Your task to perform on an android device: clear history in the chrome app Image 0: 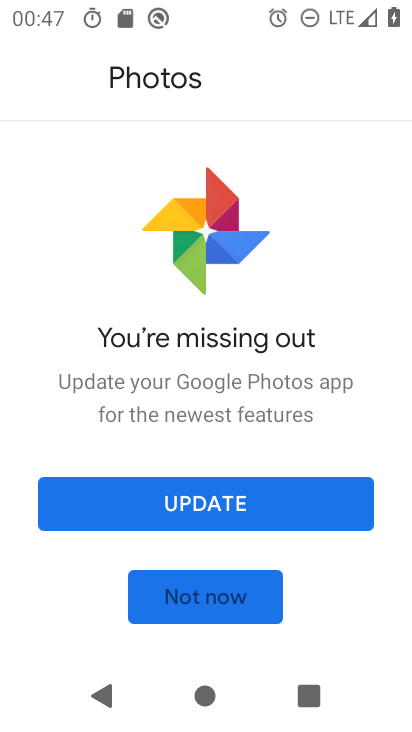
Step 0: press home button
Your task to perform on an android device: clear history in the chrome app Image 1: 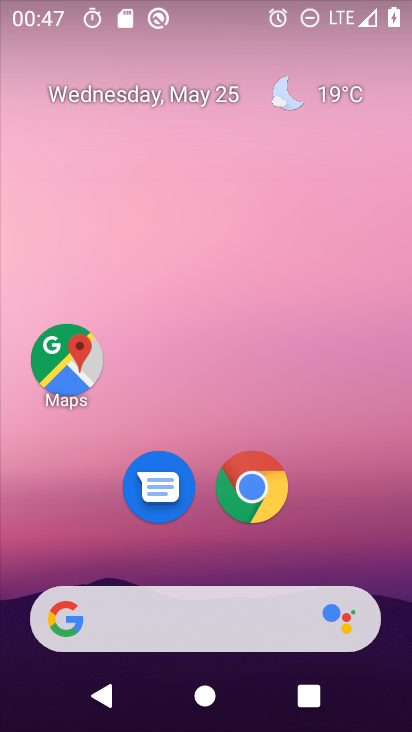
Step 1: click (257, 496)
Your task to perform on an android device: clear history in the chrome app Image 2: 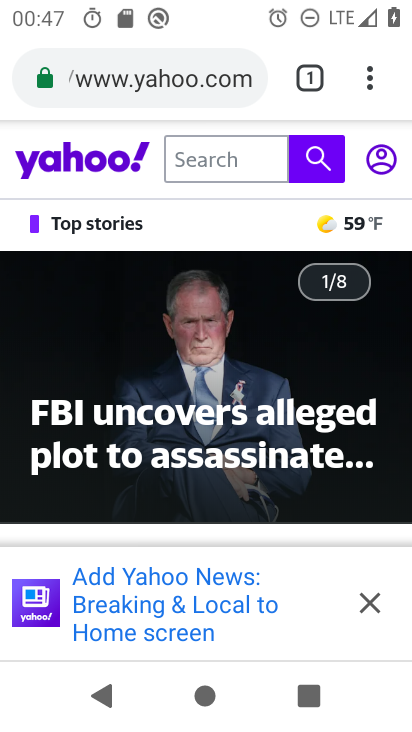
Step 2: click (370, 86)
Your task to perform on an android device: clear history in the chrome app Image 3: 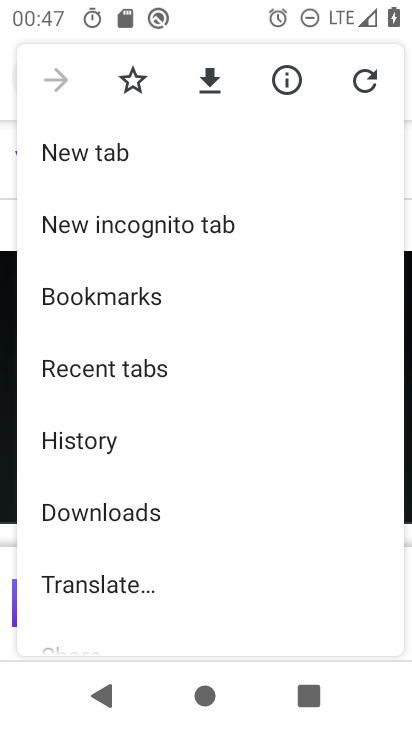
Step 3: drag from (195, 431) to (175, 144)
Your task to perform on an android device: clear history in the chrome app Image 4: 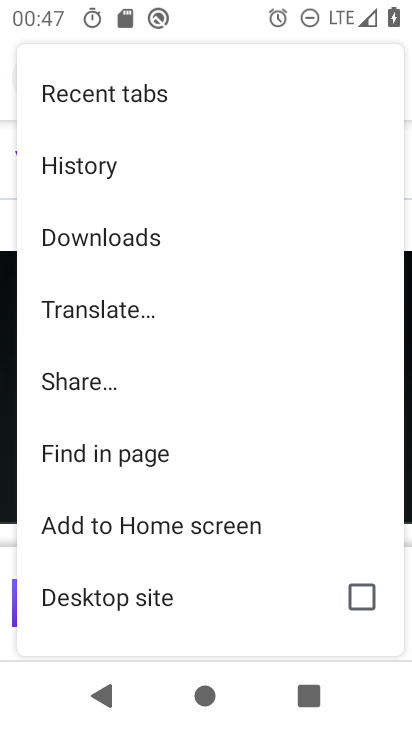
Step 4: drag from (179, 449) to (147, 112)
Your task to perform on an android device: clear history in the chrome app Image 5: 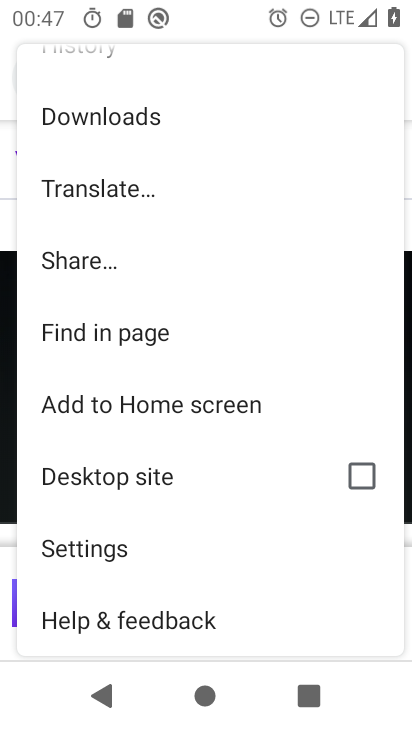
Step 5: click (72, 545)
Your task to perform on an android device: clear history in the chrome app Image 6: 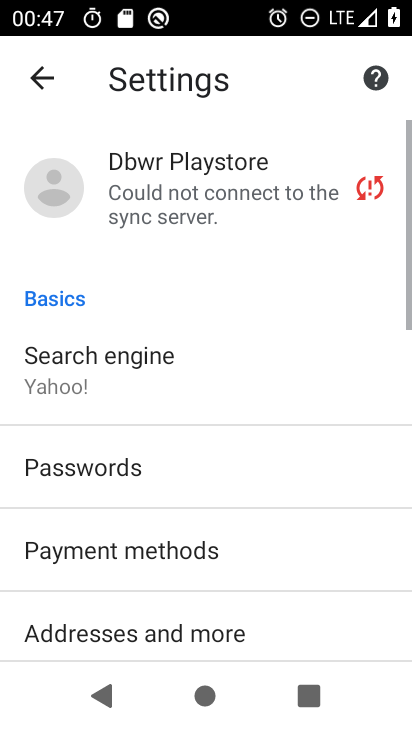
Step 6: drag from (136, 565) to (109, 100)
Your task to perform on an android device: clear history in the chrome app Image 7: 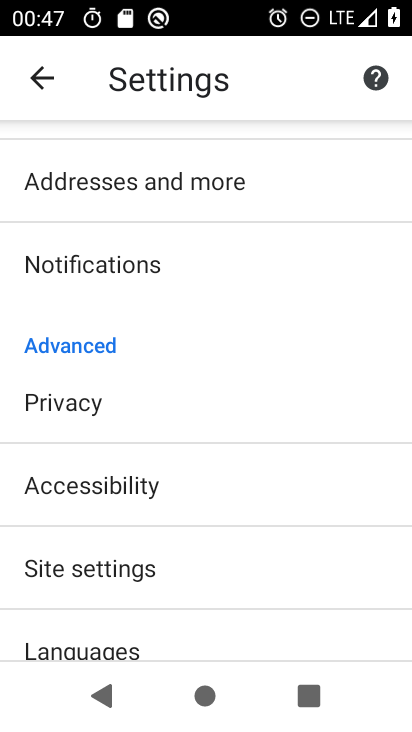
Step 7: click (74, 394)
Your task to perform on an android device: clear history in the chrome app Image 8: 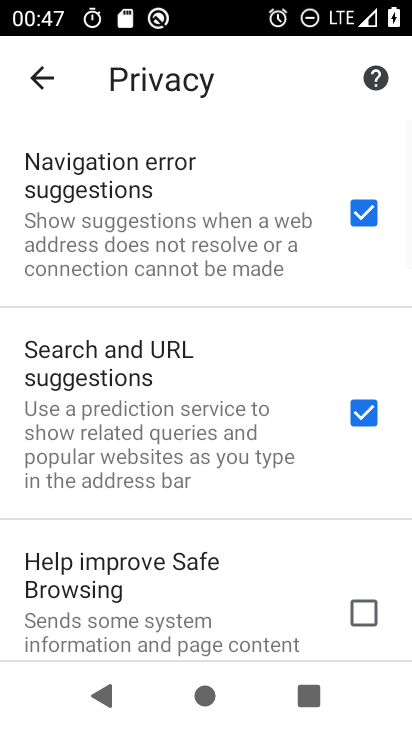
Step 8: drag from (187, 451) to (148, 81)
Your task to perform on an android device: clear history in the chrome app Image 9: 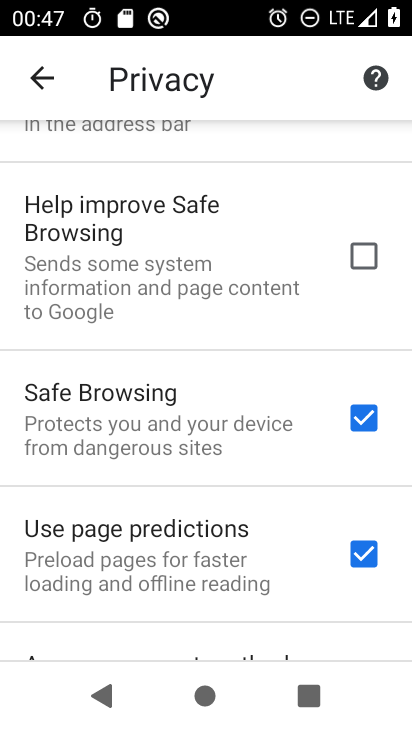
Step 9: drag from (124, 429) to (95, 84)
Your task to perform on an android device: clear history in the chrome app Image 10: 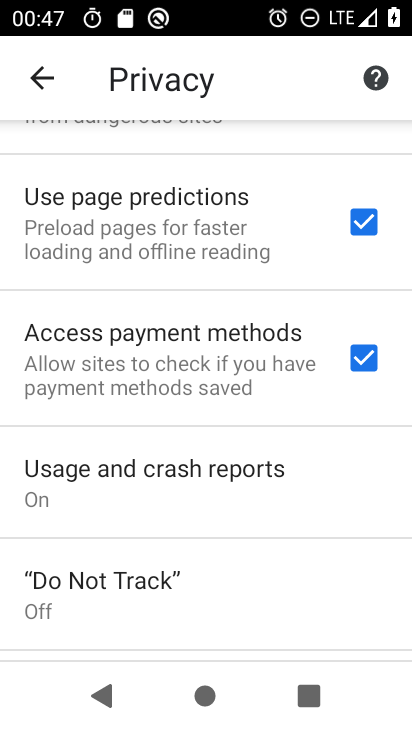
Step 10: drag from (69, 485) to (70, 124)
Your task to perform on an android device: clear history in the chrome app Image 11: 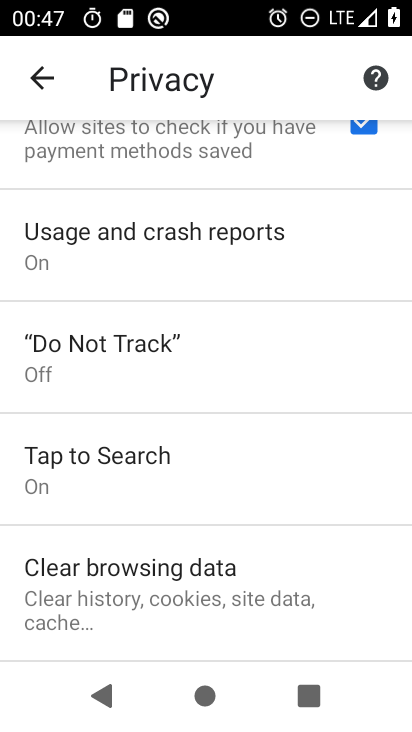
Step 11: click (88, 585)
Your task to perform on an android device: clear history in the chrome app Image 12: 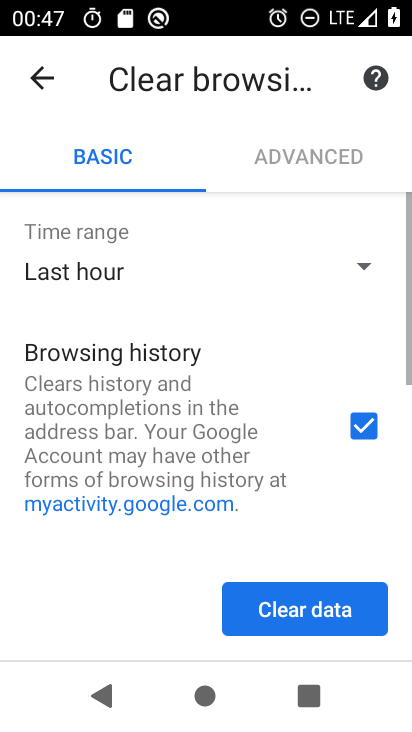
Step 12: drag from (138, 523) to (126, 257)
Your task to perform on an android device: clear history in the chrome app Image 13: 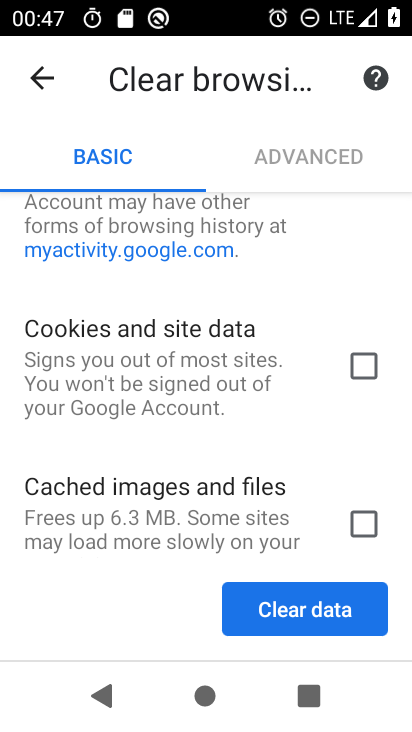
Step 13: click (282, 612)
Your task to perform on an android device: clear history in the chrome app Image 14: 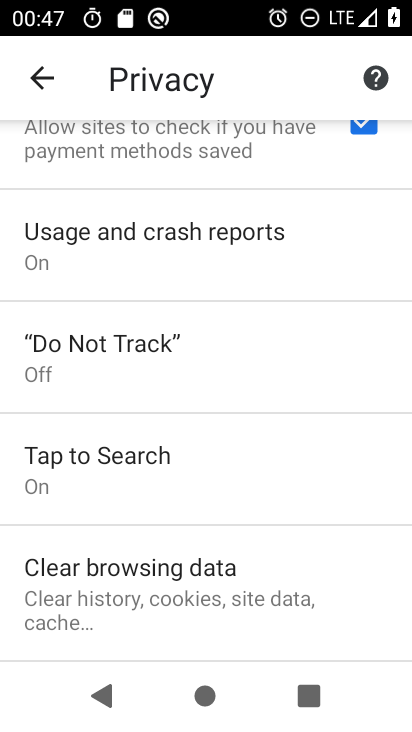
Step 14: task complete